Your task to perform on an android device: Go to ESPN.com Image 0: 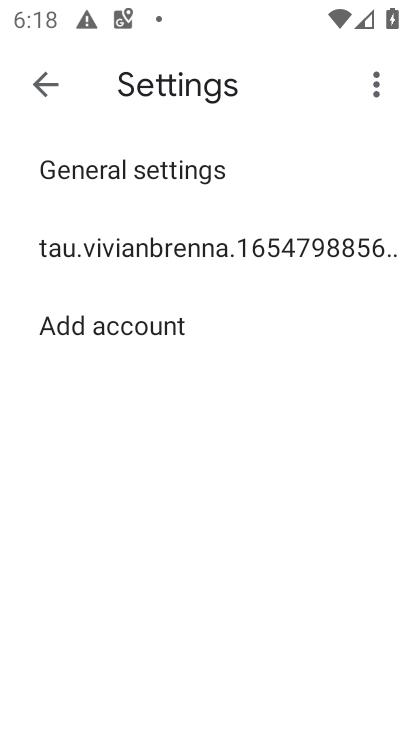
Step 0: press home button
Your task to perform on an android device: Go to ESPN.com Image 1: 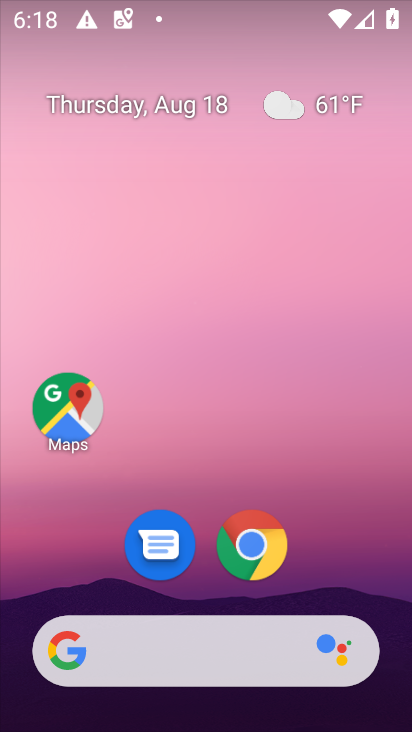
Step 1: click (263, 549)
Your task to perform on an android device: Go to ESPN.com Image 2: 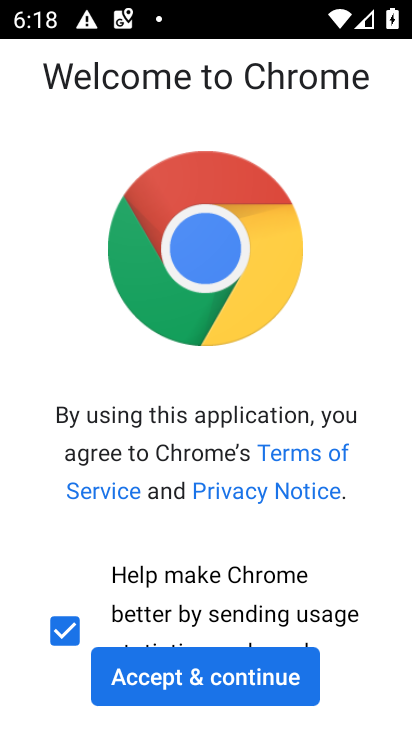
Step 2: click (209, 674)
Your task to perform on an android device: Go to ESPN.com Image 3: 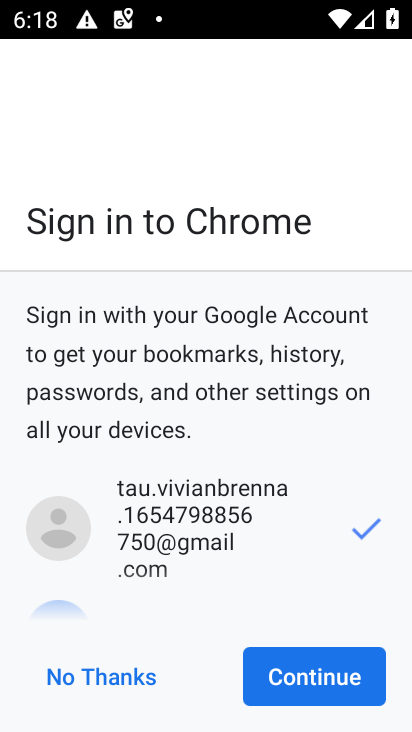
Step 3: click (297, 676)
Your task to perform on an android device: Go to ESPN.com Image 4: 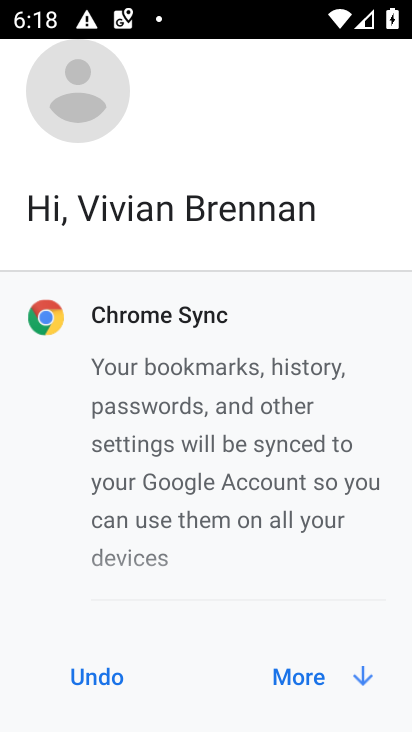
Step 4: click (360, 684)
Your task to perform on an android device: Go to ESPN.com Image 5: 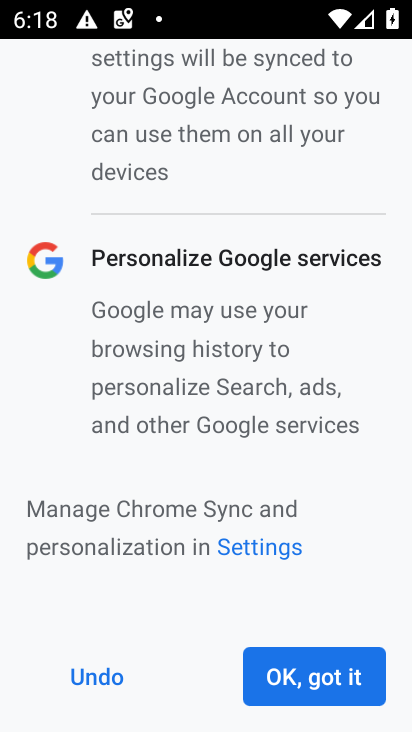
Step 5: click (341, 681)
Your task to perform on an android device: Go to ESPN.com Image 6: 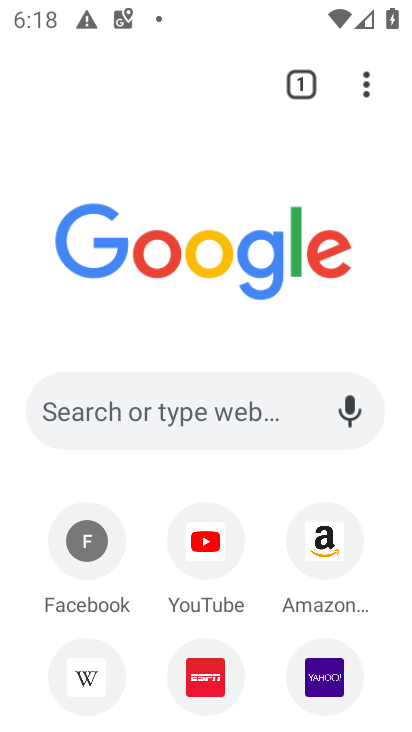
Step 6: click (201, 694)
Your task to perform on an android device: Go to ESPN.com Image 7: 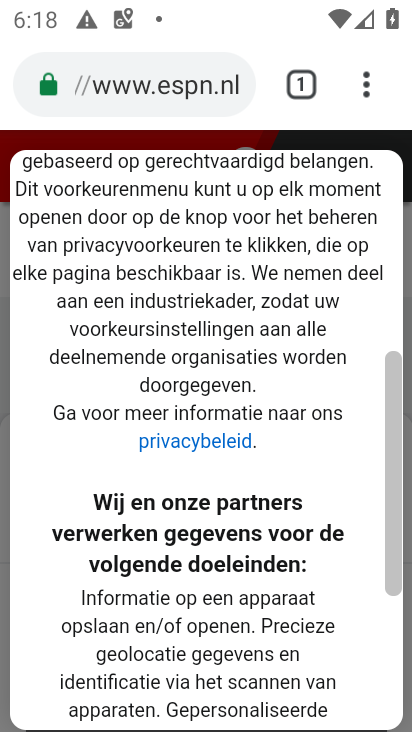
Step 7: task complete